Your task to perform on an android device: Do I have any events tomorrow? Image 0: 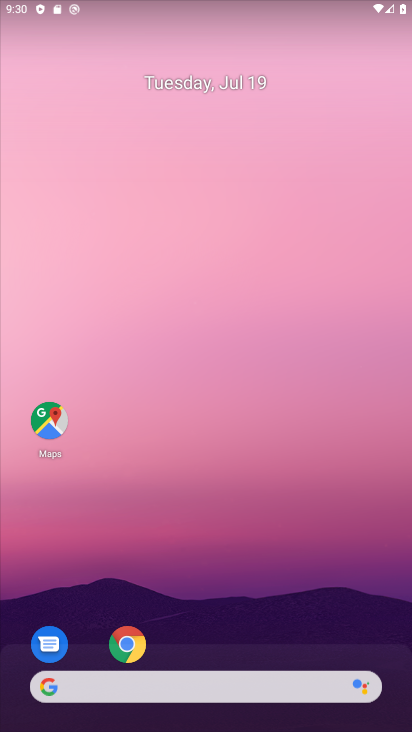
Step 0: drag from (286, 659) to (216, 138)
Your task to perform on an android device: Do I have any events tomorrow? Image 1: 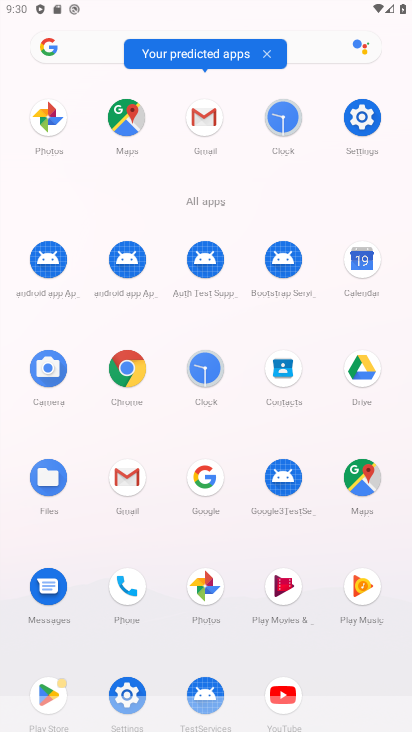
Step 1: click (360, 251)
Your task to perform on an android device: Do I have any events tomorrow? Image 2: 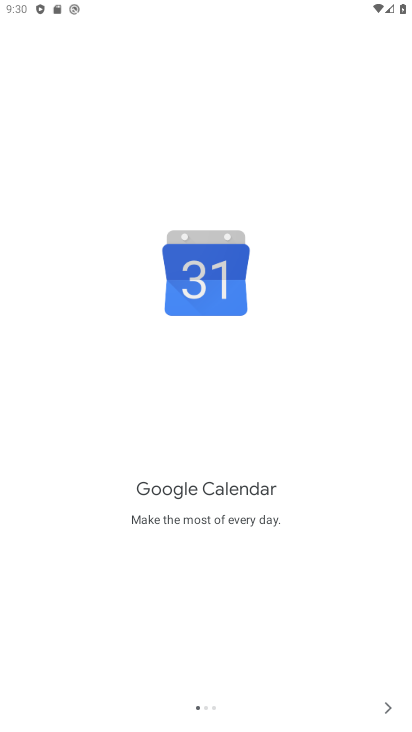
Step 2: click (388, 707)
Your task to perform on an android device: Do I have any events tomorrow? Image 3: 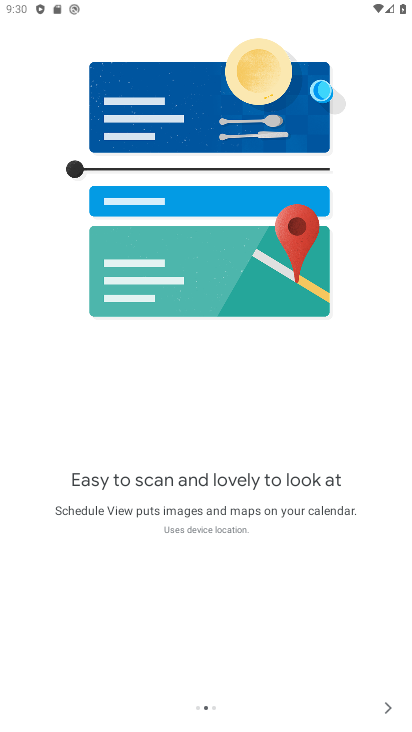
Step 3: click (388, 707)
Your task to perform on an android device: Do I have any events tomorrow? Image 4: 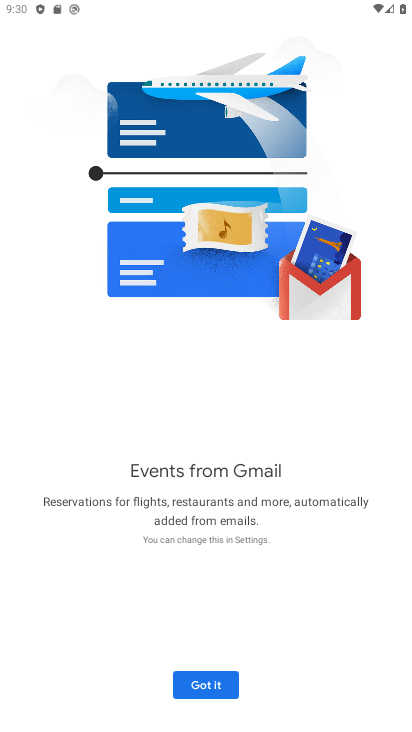
Step 4: click (204, 683)
Your task to perform on an android device: Do I have any events tomorrow? Image 5: 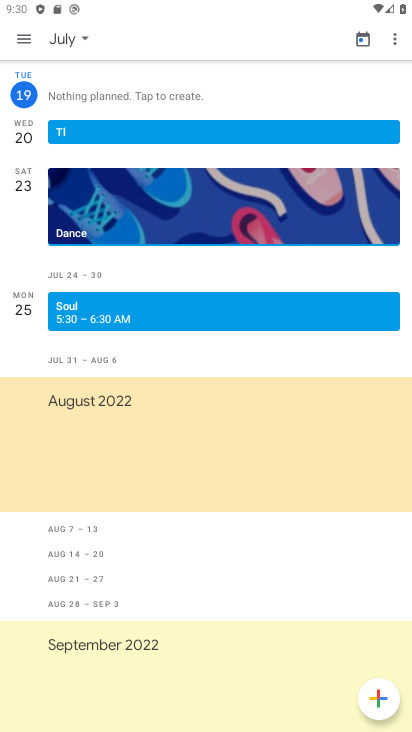
Step 5: click (21, 36)
Your task to perform on an android device: Do I have any events tomorrow? Image 6: 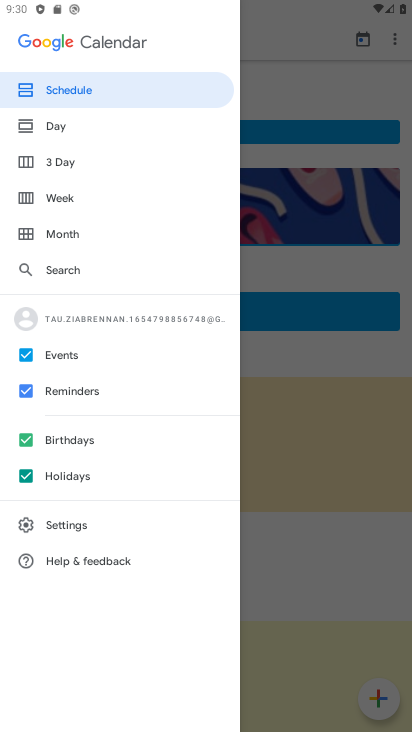
Step 6: click (26, 480)
Your task to perform on an android device: Do I have any events tomorrow? Image 7: 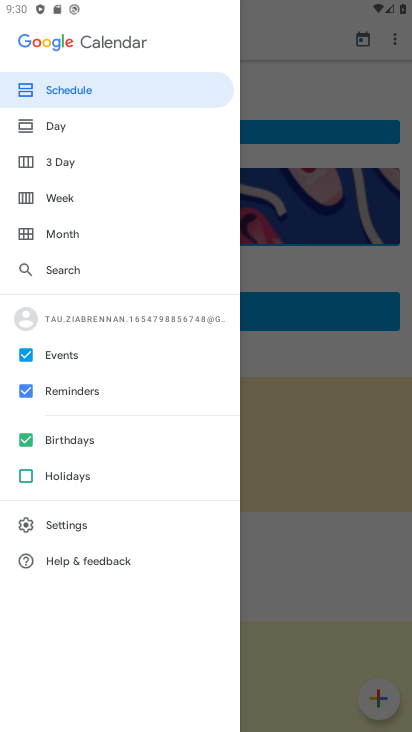
Step 7: click (25, 440)
Your task to perform on an android device: Do I have any events tomorrow? Image 8: 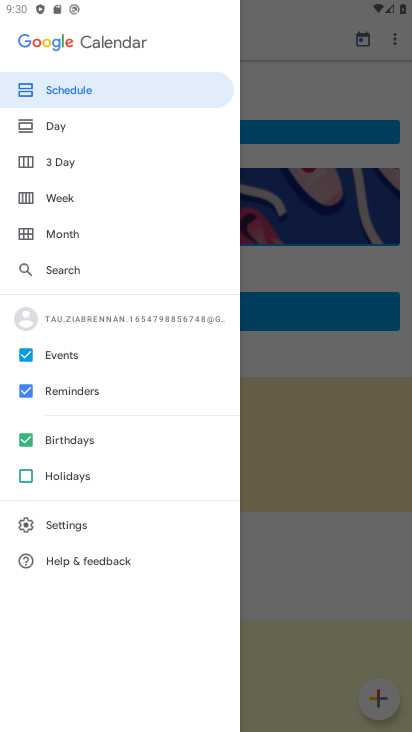
Step 8: click (23, 392)
Your task to perform on an android device: Do I have any events tomorrow? Image 9: 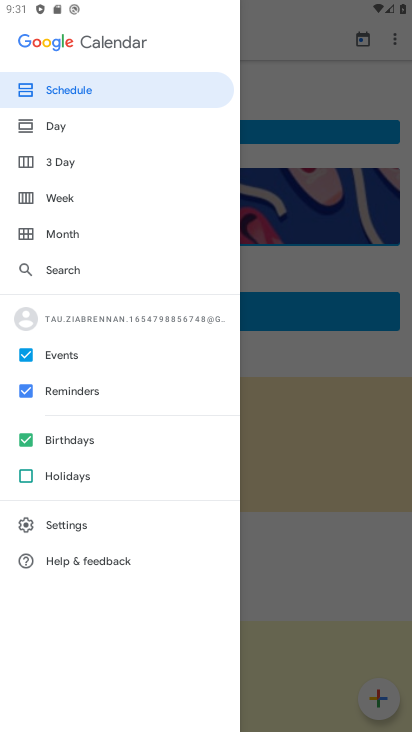
Step 9: click (24, 436)
Your task to perform on an android device: Do I have any events tomorrow? Image 10: 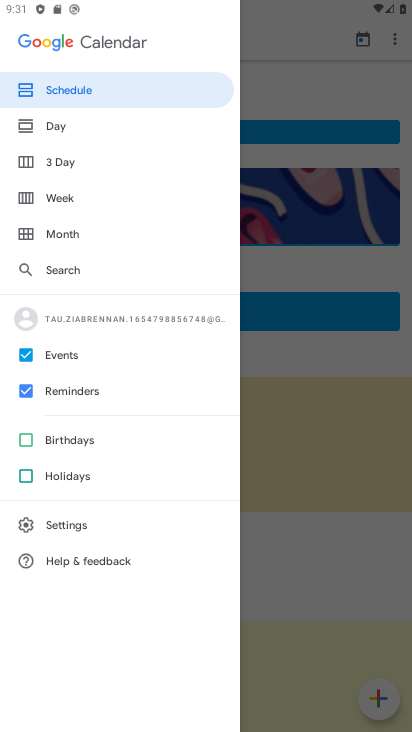
Step 10: click (29, 396)
Your task to perform on an android device: Do I have any events tomorrow? Image 11: 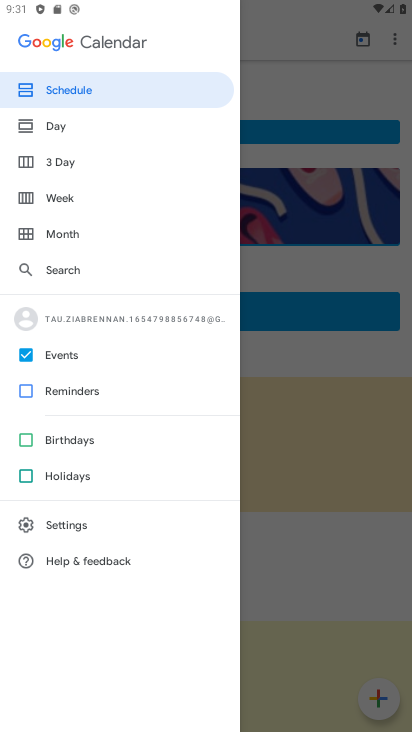
Step 11: click (58, 133)
Your task to perform on an android device: Do I have any events tomorrow? Image 12: 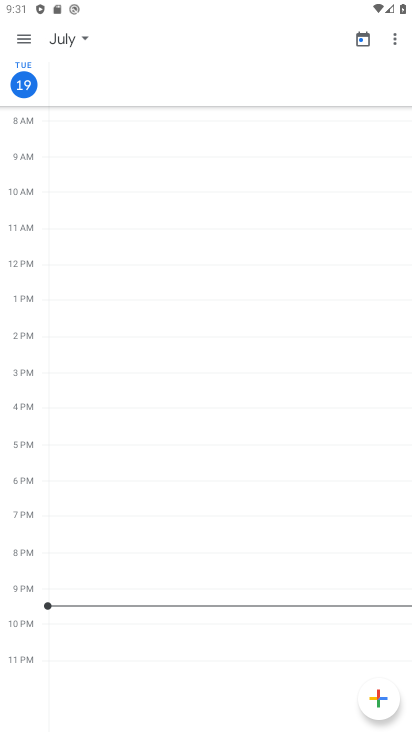
Step 12: task complete